Your task to perform on an android device: Open battery settings Image 0: 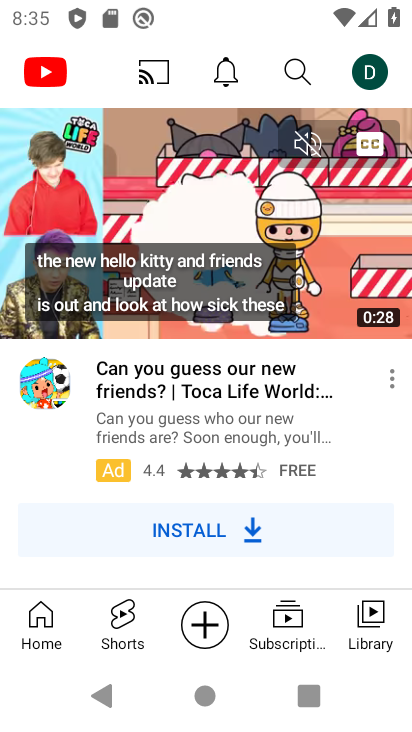
Step 0: press home button
Your task to perform on an android device: Open battery settings Image 1: 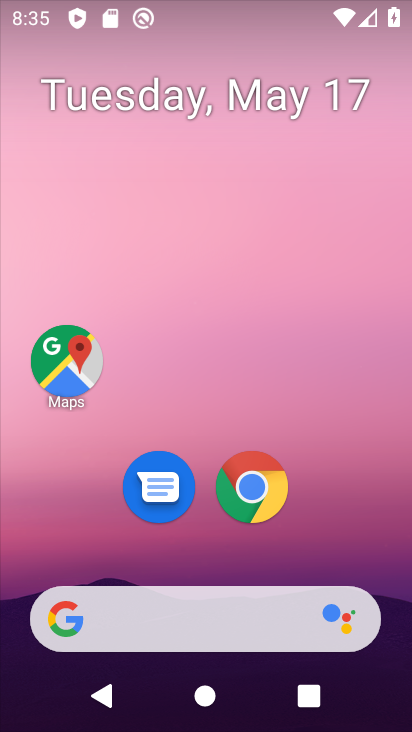
Step 1: drag from (197, 665) to (376, 3)
Your task to perform on an android device: Open battery settings Image 2: 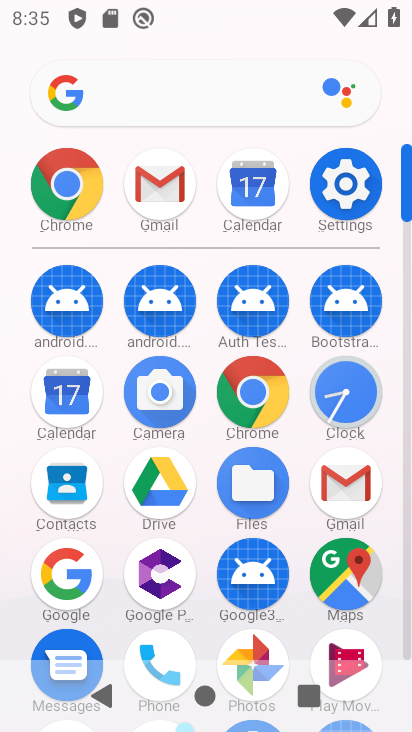
Step 2: click (332, 168)
Your task to perform on an android device: Open battery settings Image 3: 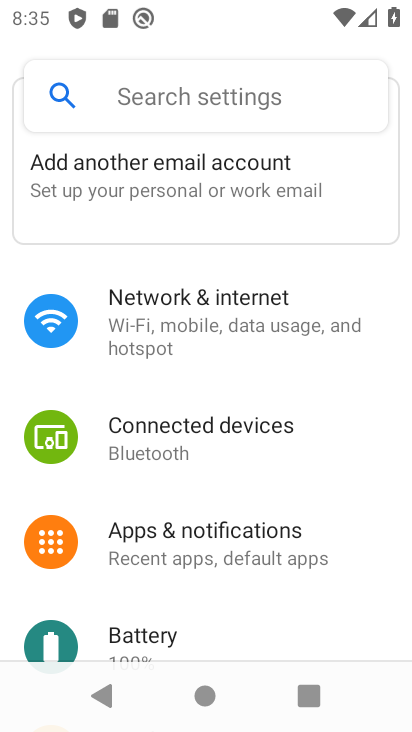
Step 3: click (135, 640)
Your task to perform on an android device: Open battery settings Image 4: 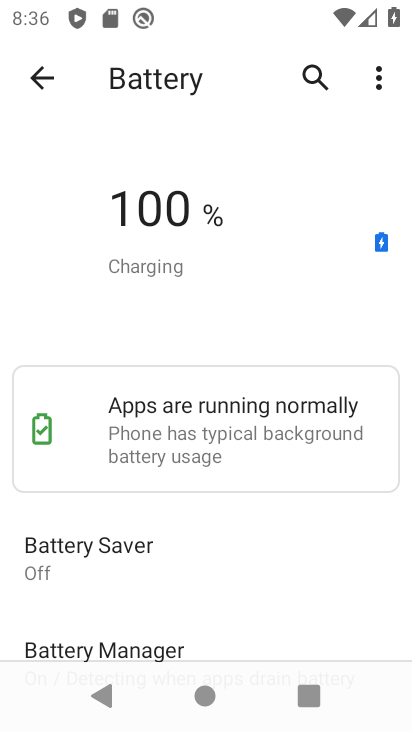
Step 4: task complete